Your task to perform on an android device: turn off location history Image 0: 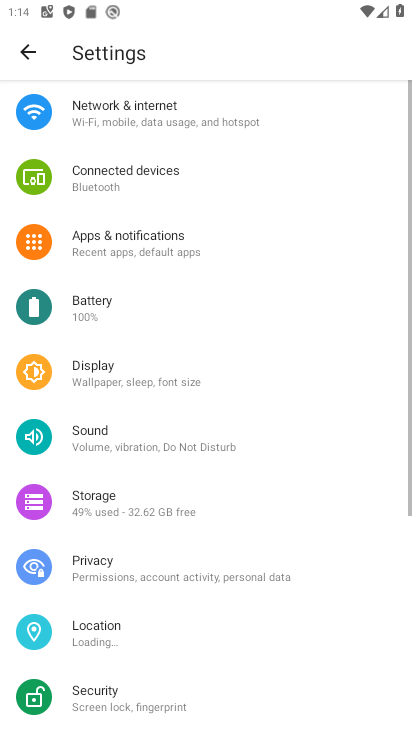
Step 0: press home button
Your task to perform on an android device: turn off location history Image 1: 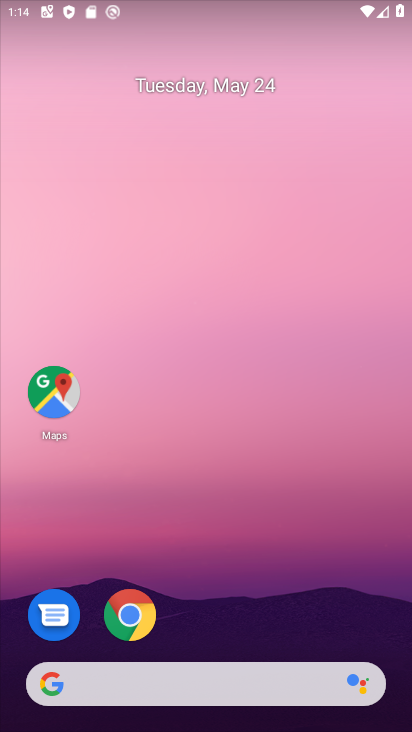
Step 1: drag from (221, 645) to (206, 362)
Your task to perform on an android device: turn off location history Image 2: 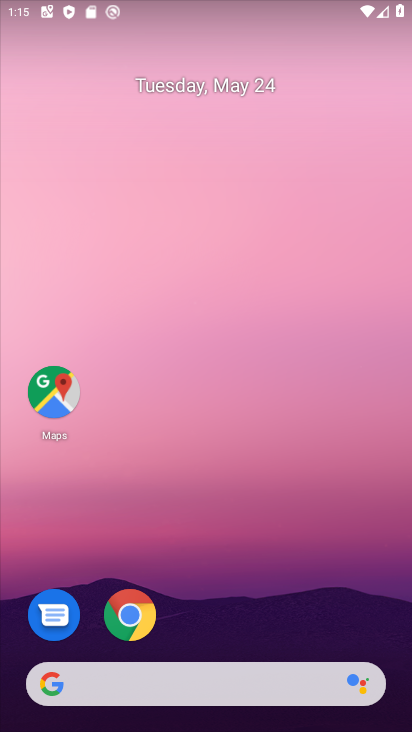
Step 2: drag from (221, 647) to (220, 124)
Your task to perform on an android device: turn off location history Image 3: 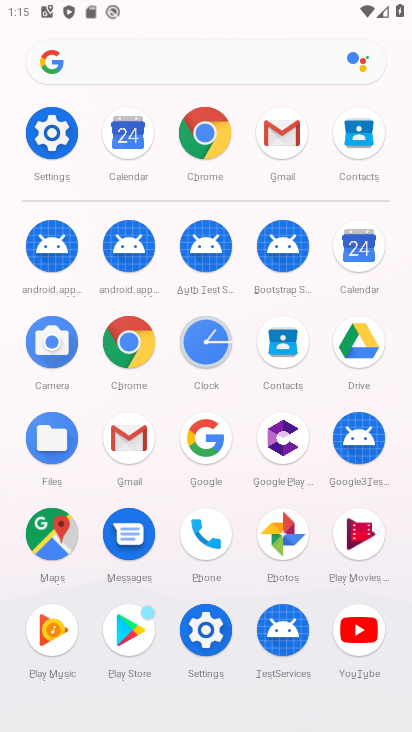
Step 3: click (48, 126)
Your task to perform on an android device: turn off location history Image 4: 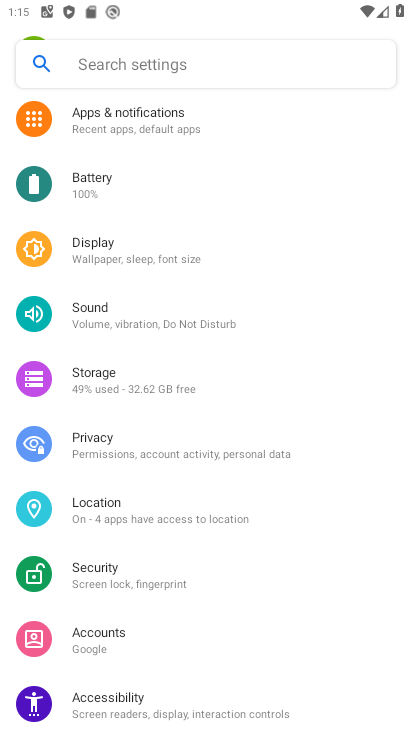
Step 4: click (128, 504)
Your task to perform on an android device: turn off location history Image 5: 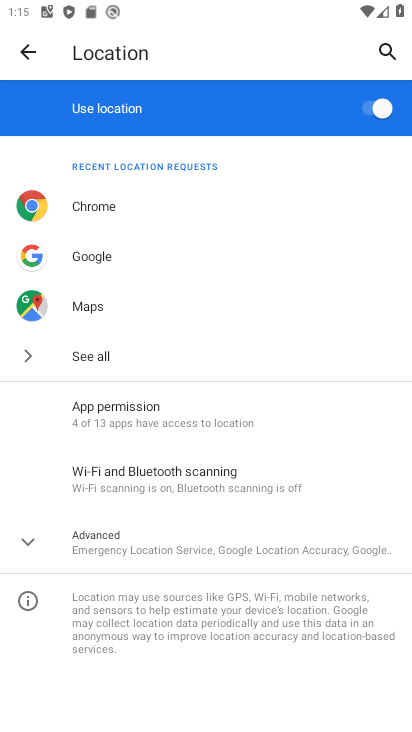
Step 5: click (27, 537)
Your task to perform on an android device: turn off location history Image 6: 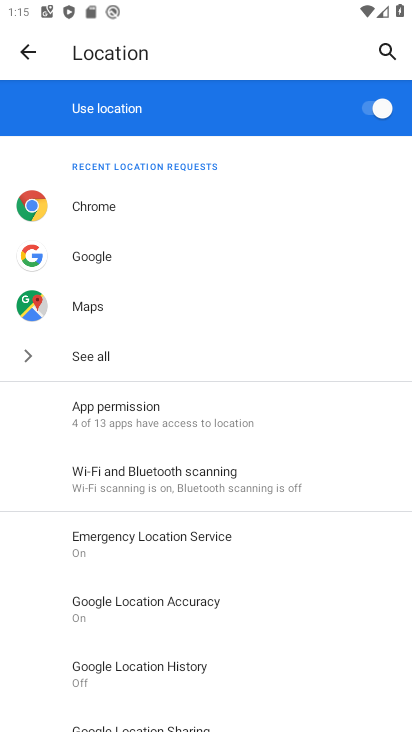
Step 6: click (217, 667)
Your task to perform on an android device: turn off location history Image 7: 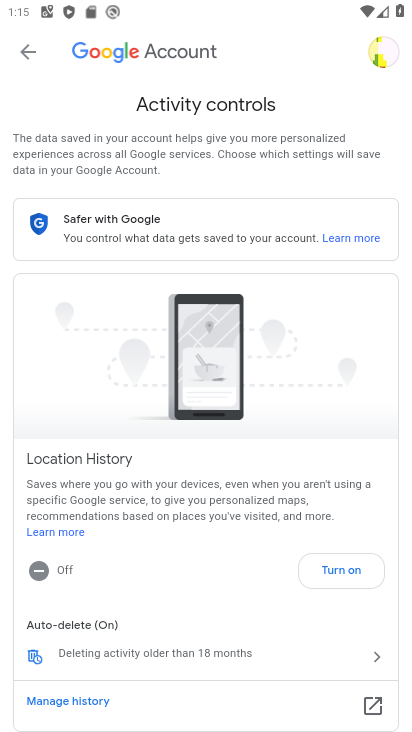
Step 7: task complete